Your task to perform on an android device: turn off notifications in google photos Image 0: 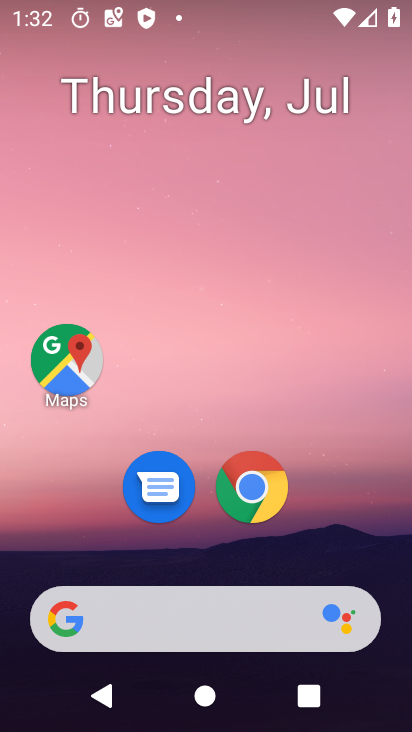
Step 0: drag from (208, 567) to (287, 140)
Your task to perform on an android device: turn off notifications in google photos Image 1: 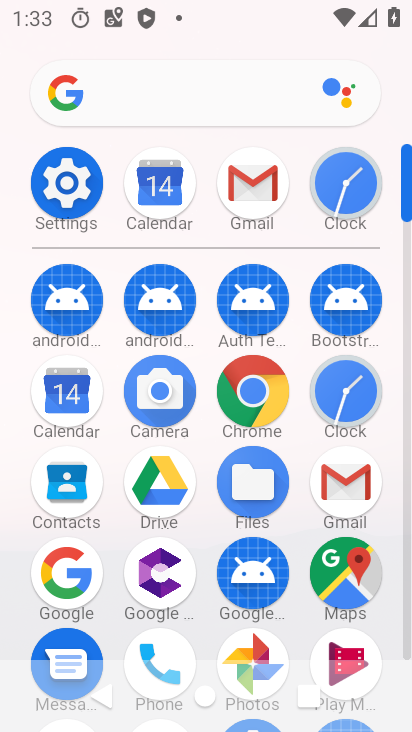
Step 1: drag from (281, 402) to (335, 188)
Your task to perform on an android device: turn off notifications in google photos Image 2: 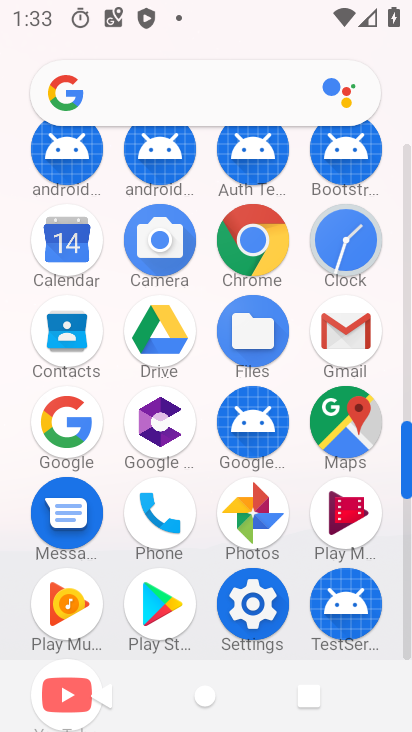
Step 2: click (239, 524)
Your task to perform on an android device: turn off notifications in google photos Image 3: 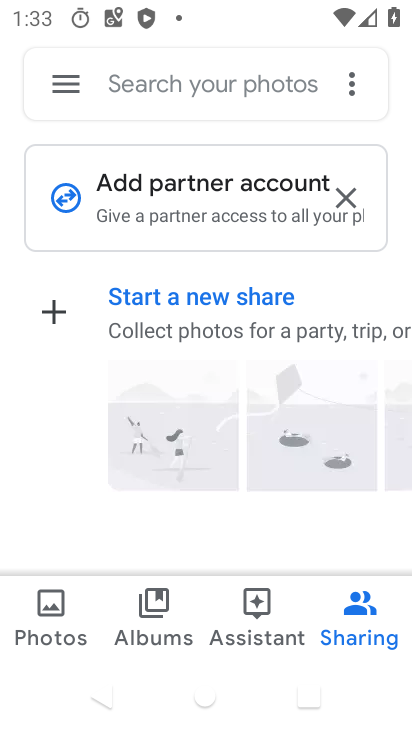
Step 3: click (55, 75)
Your task to perform on an android device: turn off notifications in google photos Image 4: 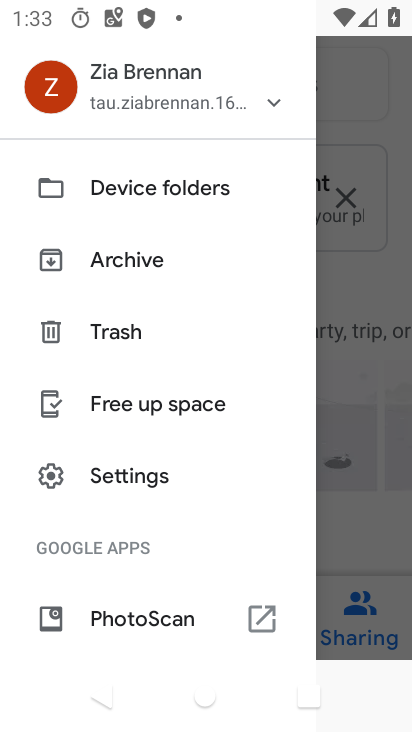
Step 4: click (136, 475)
Your task to perform on an android device: turn off notifications in google photos Image 5: 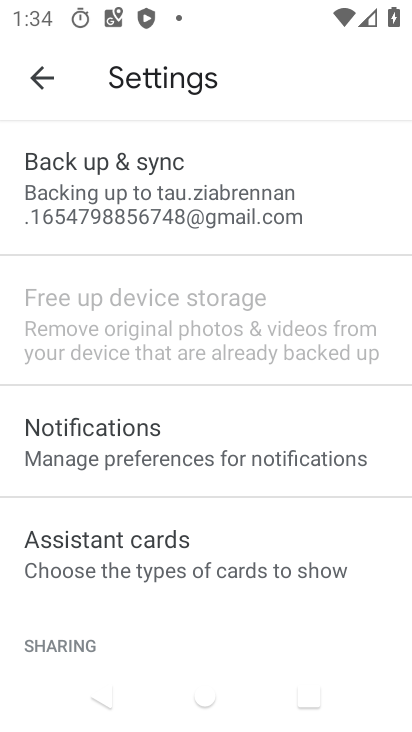
Step 5: click (154, 440)
Your task to perform on an android device: turn off notifications in google photos Image 6: 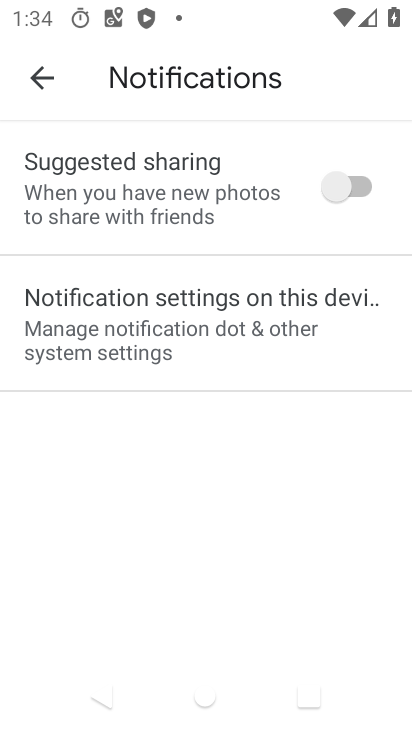
Step 6: click (205, 339)
Your task to perform on an android device: turn off notifications in google photos Image 7: 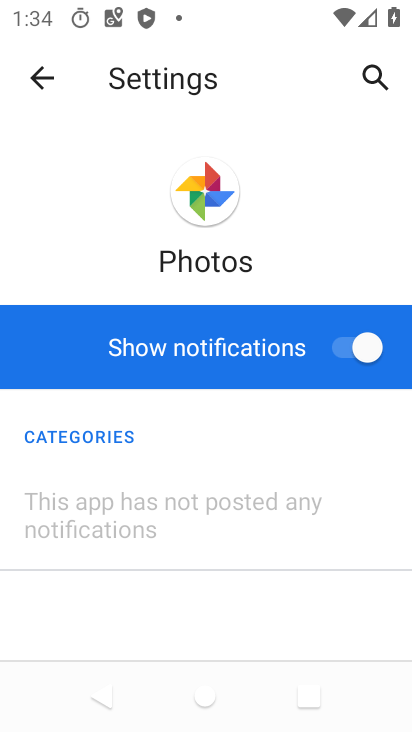
Step 7: click (351, 349)
Your task to perform on an android device: turn off notifications in google photos Image 8: 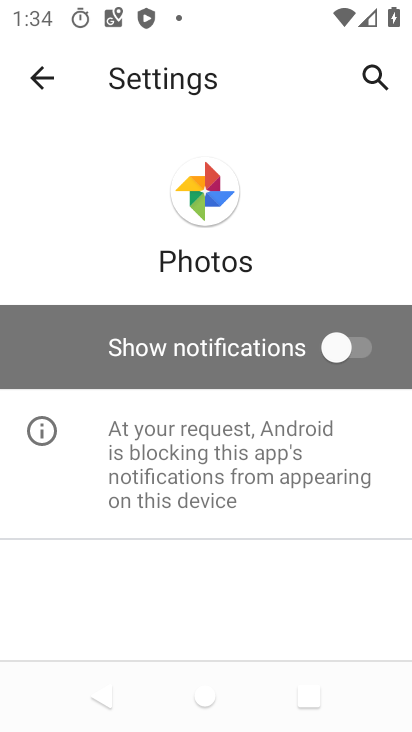
Step 8: task complete